Your task to perform on an android device: Go to Yahoo.com Image 0: 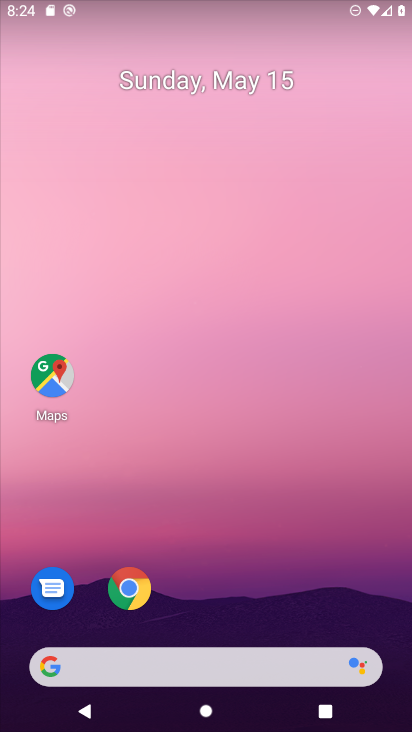
Step 0: press home button
Your task to perform on an android device: Go to Yahoo.com Image 1: 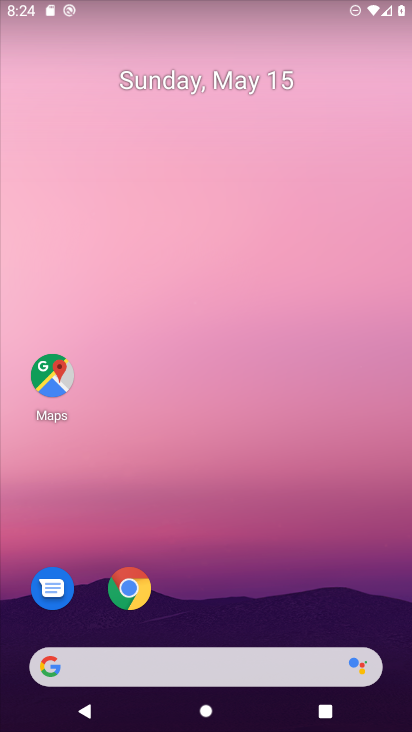
Step 1: click (125, 583)
Your task to perform on an android device: Go to Yahoo.com Image 2: 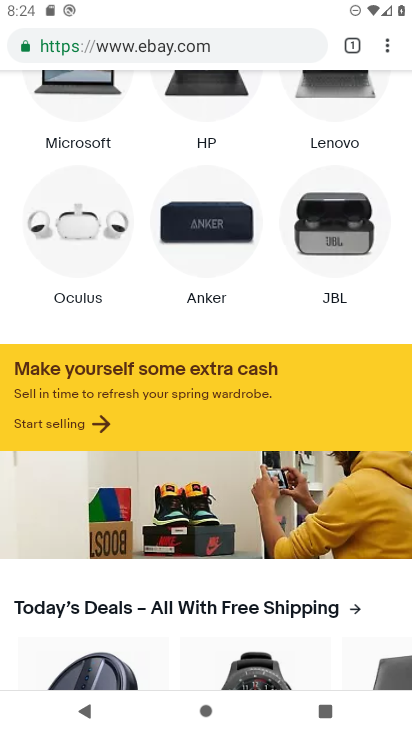
Step 2: click (348, 43)
Your task to perform on an android device: Go to Yahoo.com Image 3: 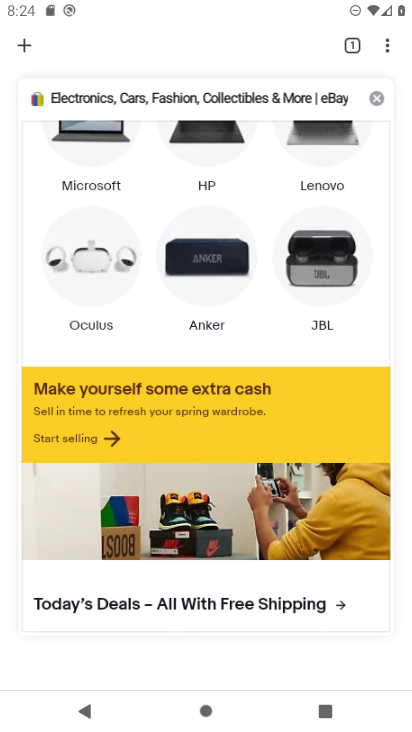
Step 3: click (376, 88)
Your task to perform on an android device: Go to Yahoo.com Image 4: 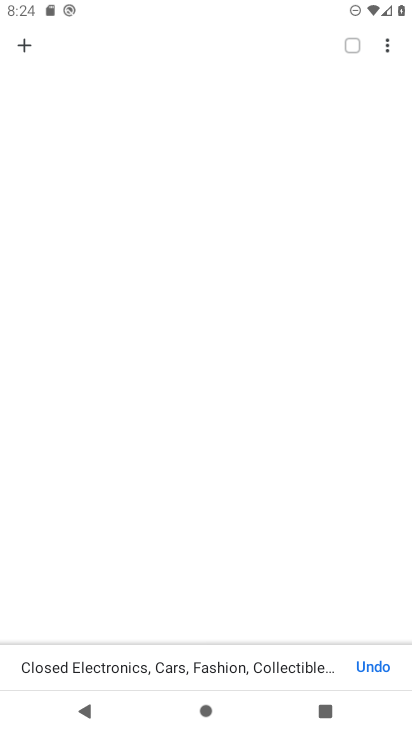
Step 4: click (27, 43)
Your task to perform on an android device: Go to Yahoo.com Image 5: 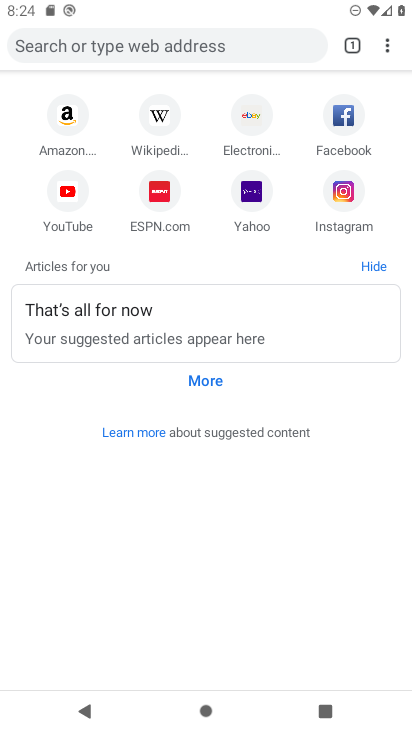
Step 5: click (248, 187)
Your task to perform on an android device: Go to Yahoo.com Image 6: 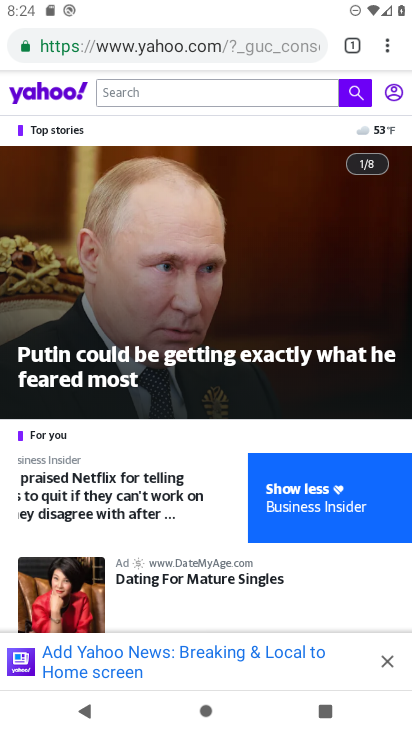
Step 6: task complete